Your task to perform on an android device: Go to location settings Image 0: 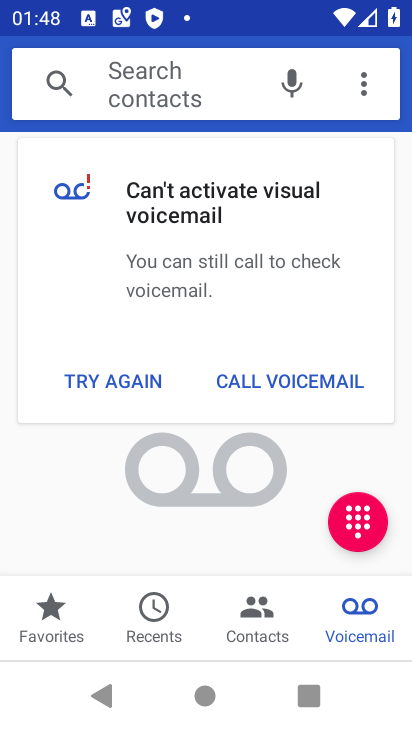
Step 0: press home button
Your task to perform on an android device: Go to location settings Image 1: 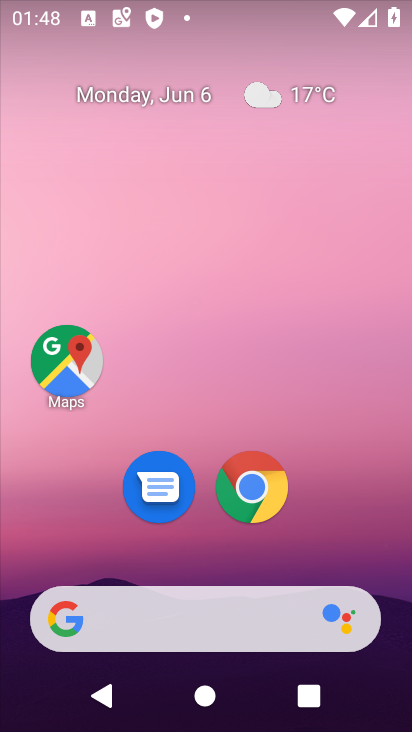
Step 1: drag from (405, 641) to (332, 87)
Your task to perform on an android device: Go to location settings Image 2: 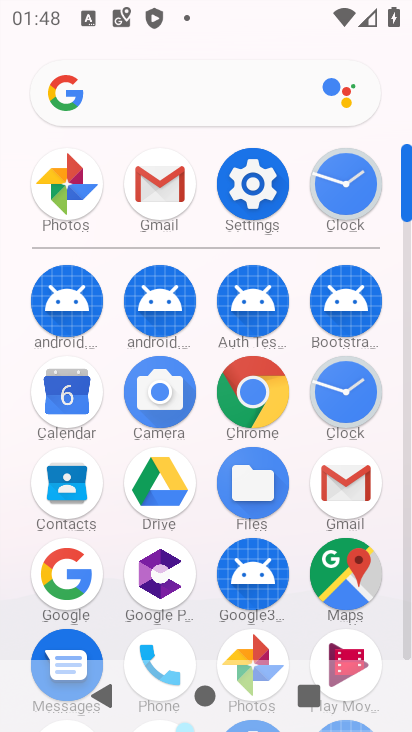
Step 2: click (408, 647)
Your task to perform on an android device: Go to location settings Image 3: 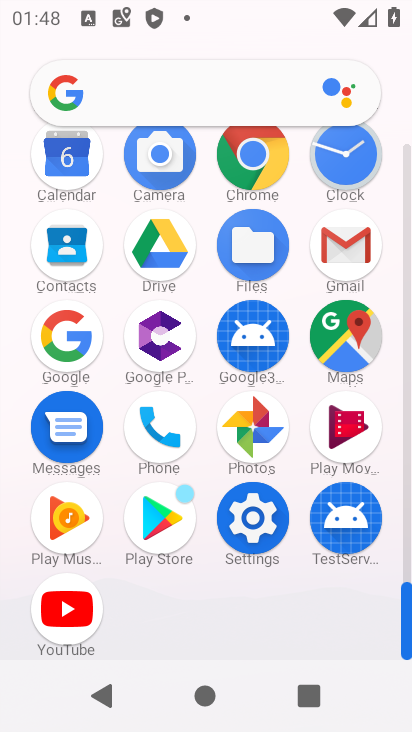
Step 3: click (253, 517)
Your task to perform on an android device: Go to location settings Image 4: 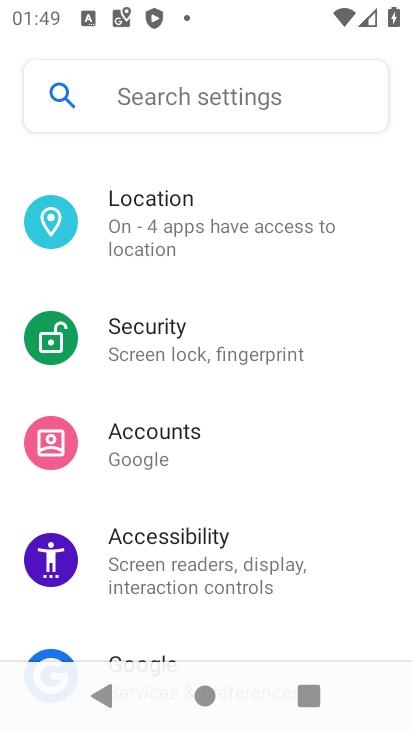
Step 4: drag from (348, 224) to (342, 431)
Your task to perform on an android device: Go to location settings Image 5: 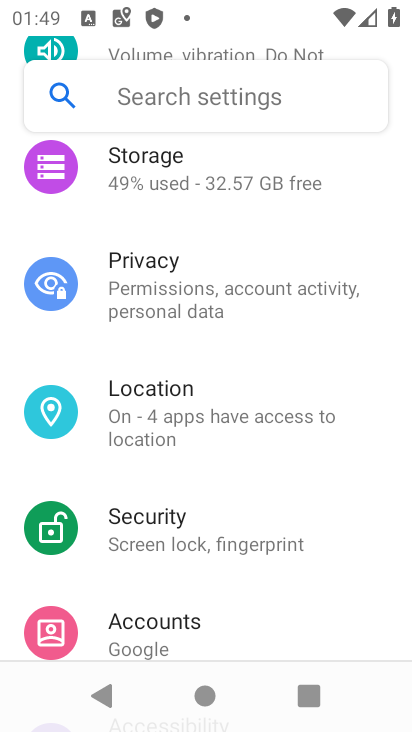
Step 5: click (147, 407)
Your task to perform on an android device: Go to location settings Image 6: 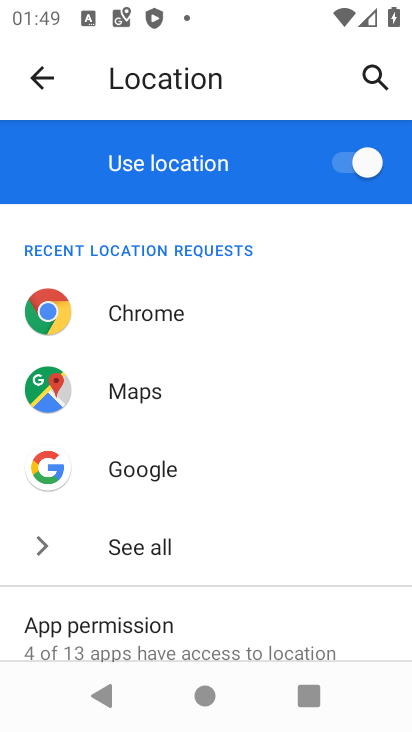
Step 6: drag from (283, 600) to (275, 357)
Your task to perform on an android device: Go to location settings Image 7: 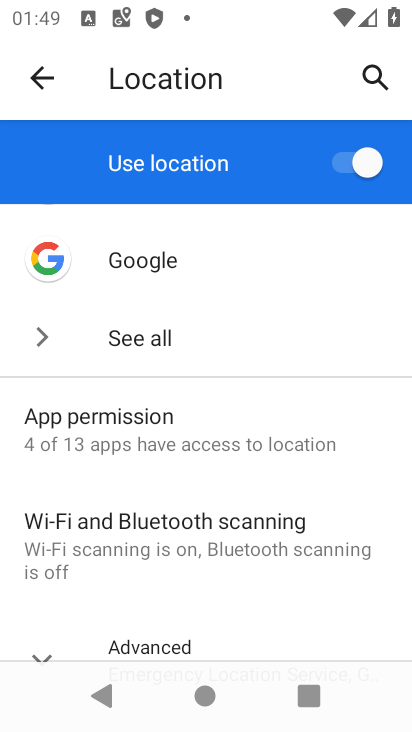
Step 7: drag from (268, 620) to (308, 234)
Your task to perform on an android device: Go to location settings Image 8: 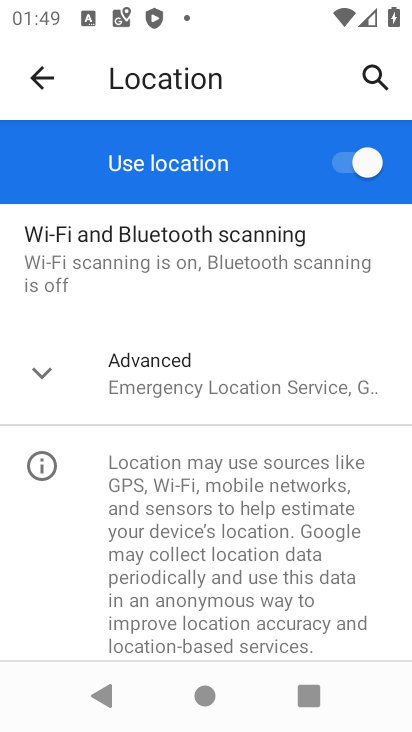
Step 8: click (44, 373)
Your task to perform on an android device: Go to location settings Image 9: 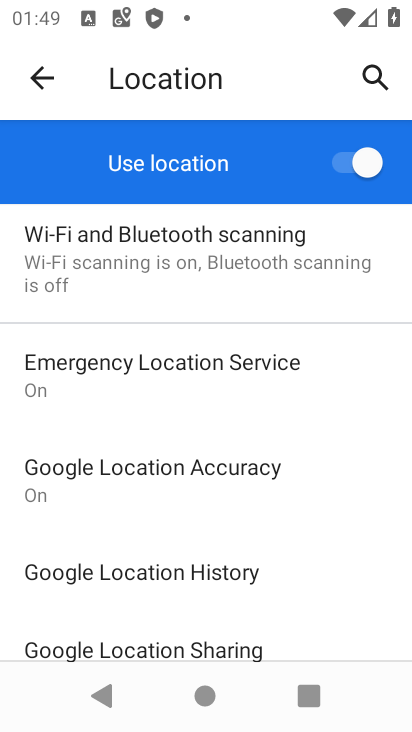
Step 9: task complete